Your task to perform on an android device: open app "Adobe Express: Graphic Design" (install if not already installed), go to login, and select forgot password Image 0: 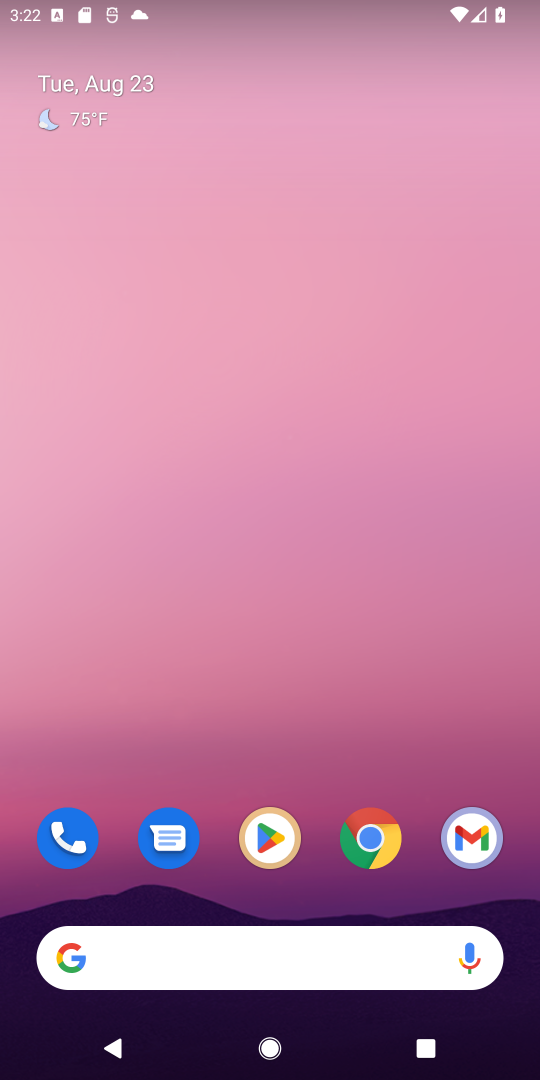
Step 0: click (281, 814)
Your task to perform on an android device: open app "Adobe Express: Graphic Design" (install if not already installed), go to login, and select forgot password Image 1: 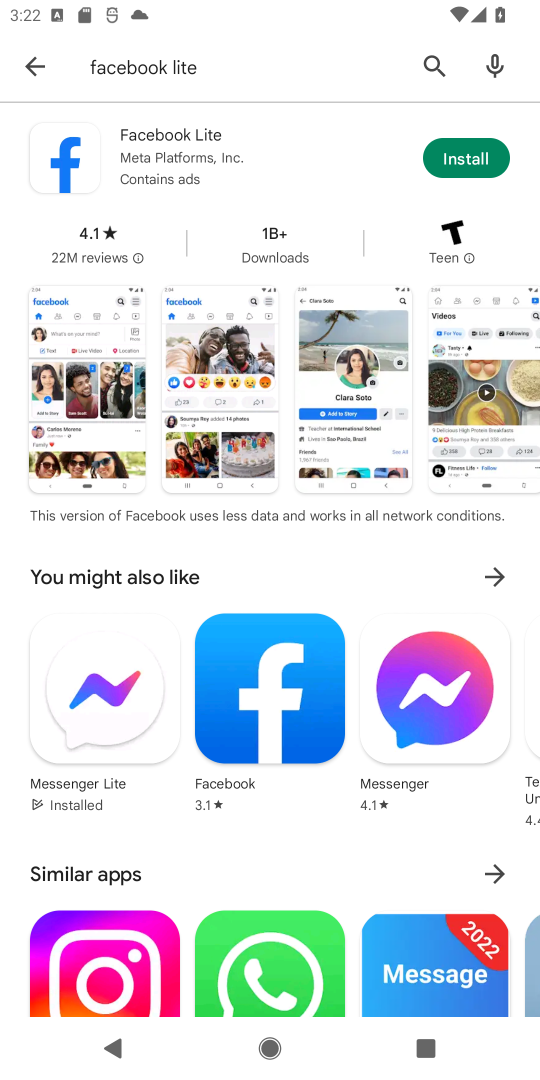
Step 1: click (25, 54)
Your task to perform on an android device: open app "Adobe Express: Graphic Design" (install if not already installed), go to login, and select forgot password Image 2: 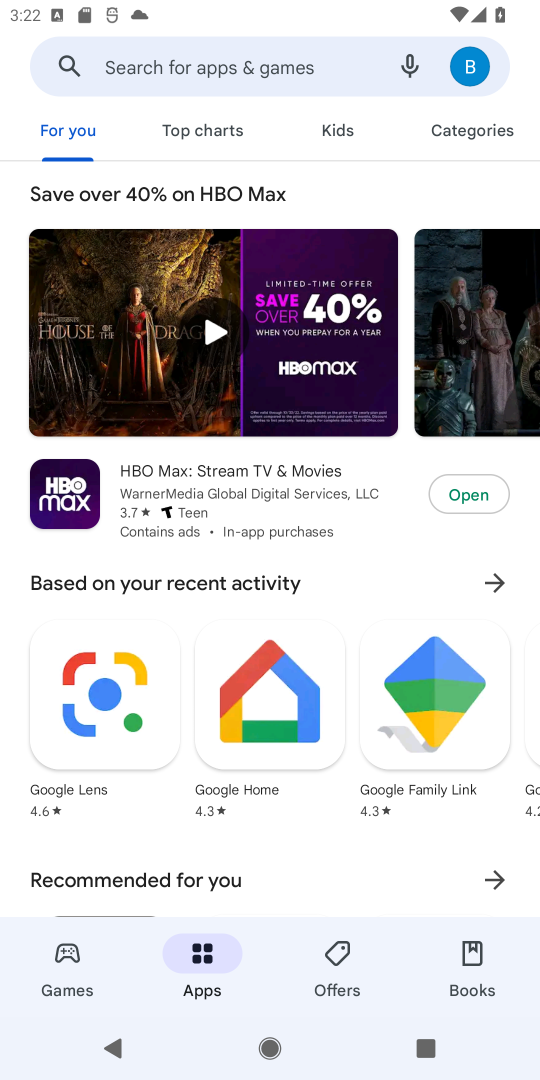
Step 2: click (152, 60)
Your task to perform on an android device: open app "Adobe Express: Graphic Design" (install if not already installed), go to login, and select forgot password Image 3: 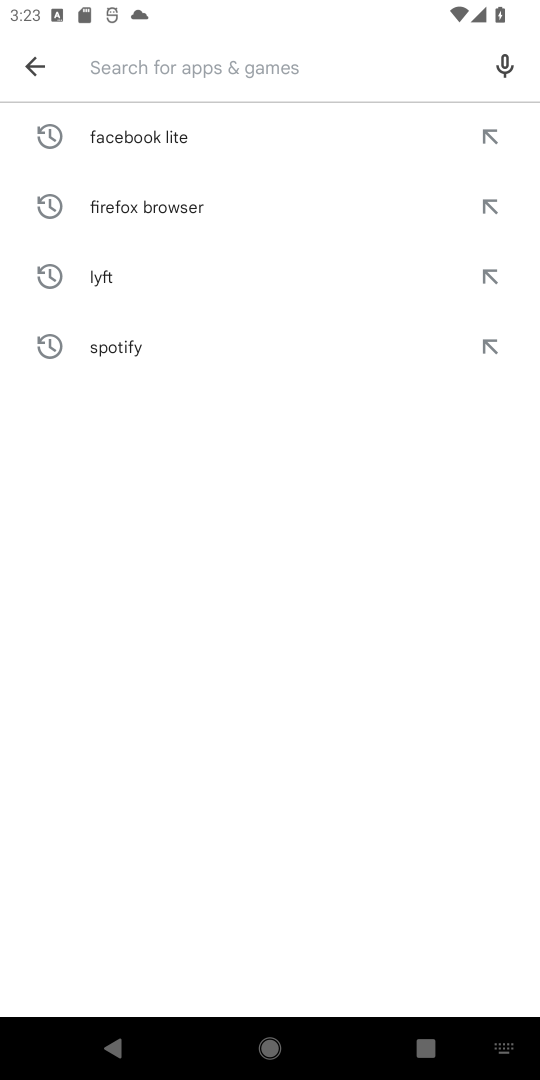
Step 3: type "Adobe Express: Graphic Design"
Your task to perform on an android device: open app "Adobe Express: Graphic Design" (install if not already installed), go to login, and select forgot password Image 4: 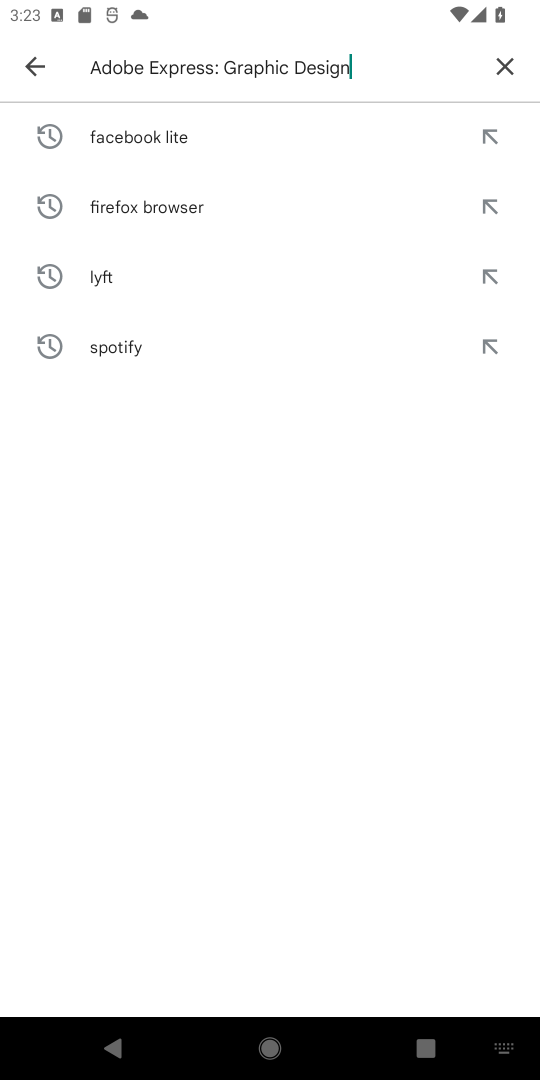
Step 4: type ""
Your task to perform on an android device: open app "Adobe Express: Graphic Design" (install if not already installed), go to login, and select forgot password Image 5: 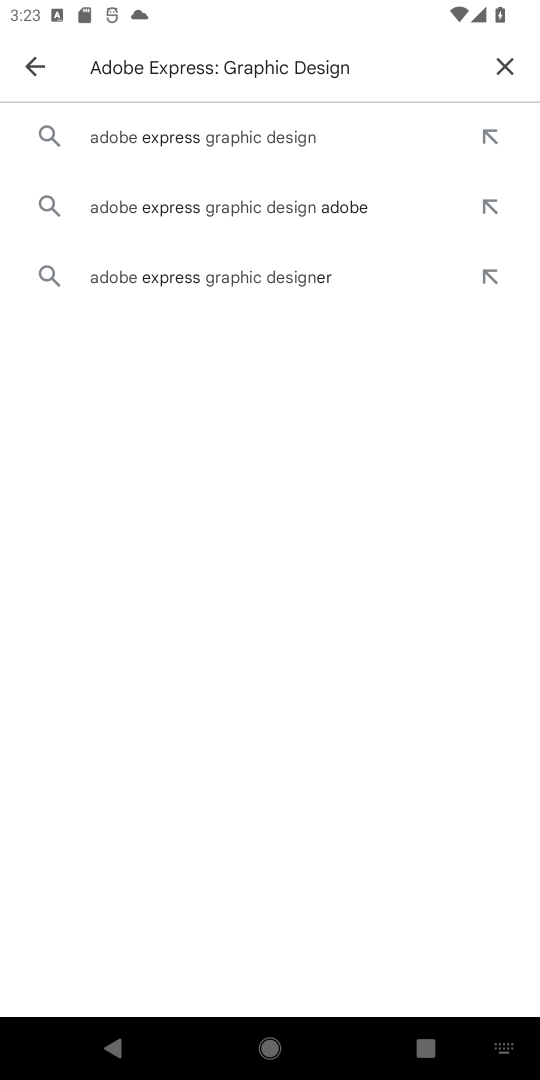
Step 5: click (121, 145)
Your task to perform on an android device: open app "Adobe Express: Graphic Design" (install if not already installed), go to login, and select forgot password Image 6: 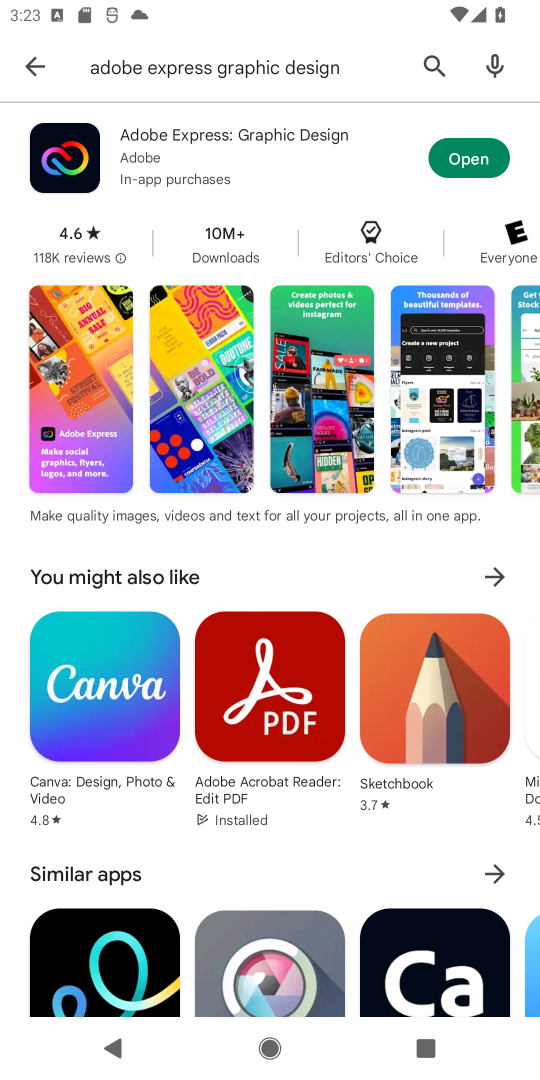
Step 6: click (478, 157)
Your task to perform on an android device: open app "Adobe Express: Graphic Design" (install if not already installed), go to login, and select forgot password Image 7: 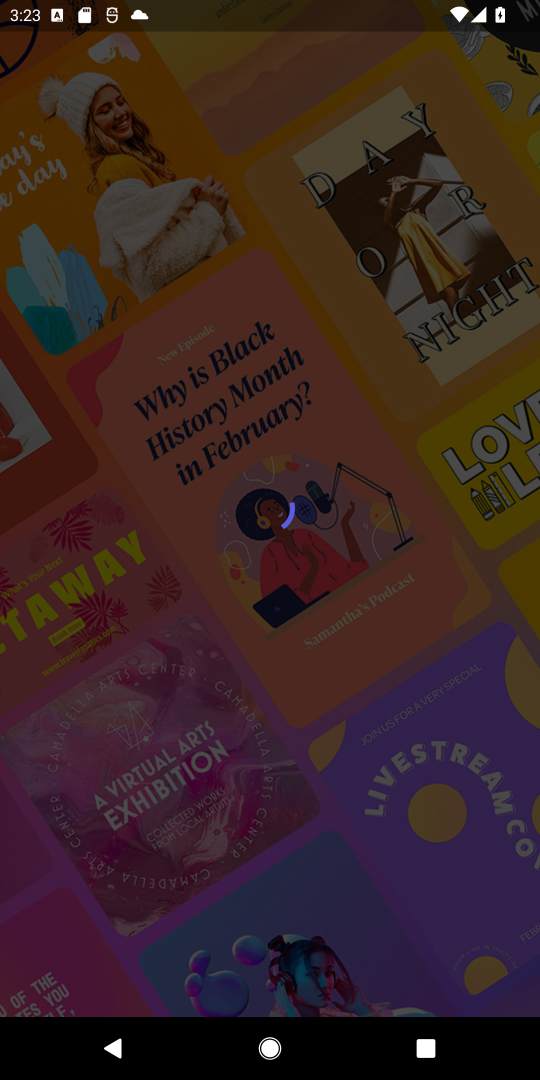
Step 7: task complete